Your task to perform on an android device: toggle wifi Image 0: 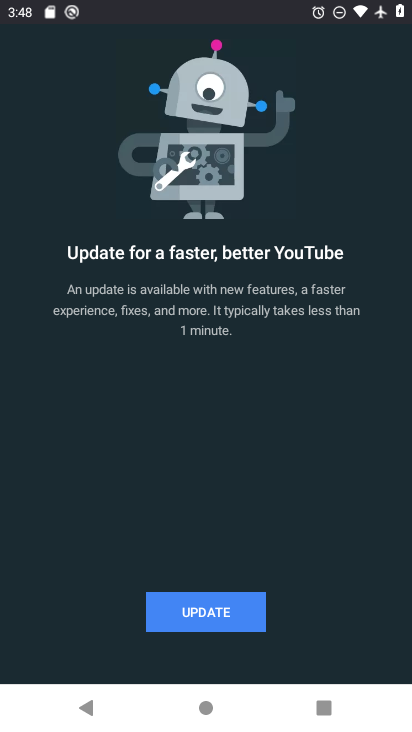
Step 0: press home button
Your task to perform on an android device: toggle wifi Image 1: 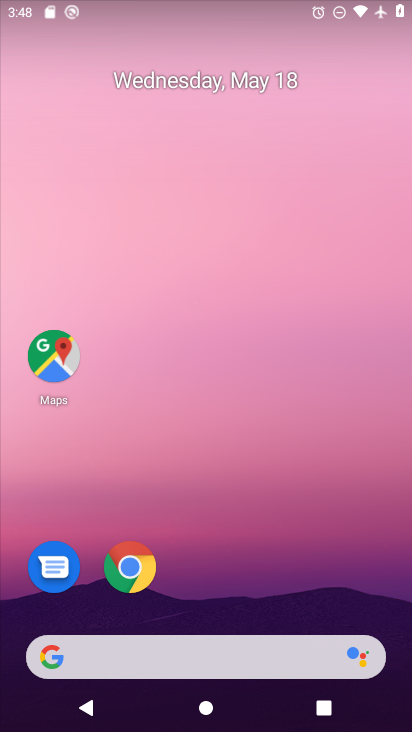
Step 1: drag from (216, 579) to (288, 196)
Your task to perform on an android device: toggle wifi Image 2: 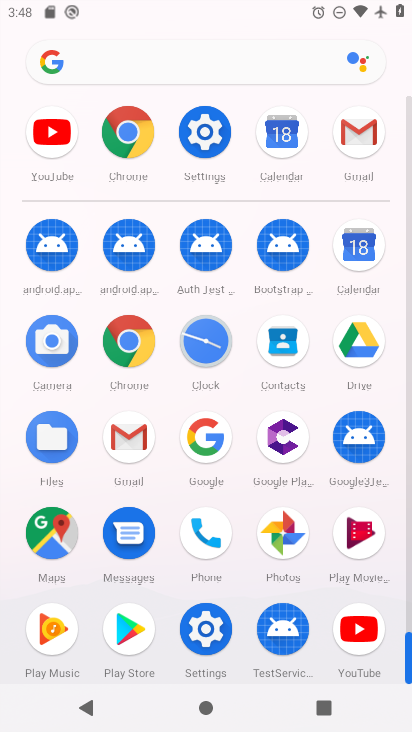
Step 2: click (206, 136)
Your task to perform on an android device: toggle wifi Image 3: 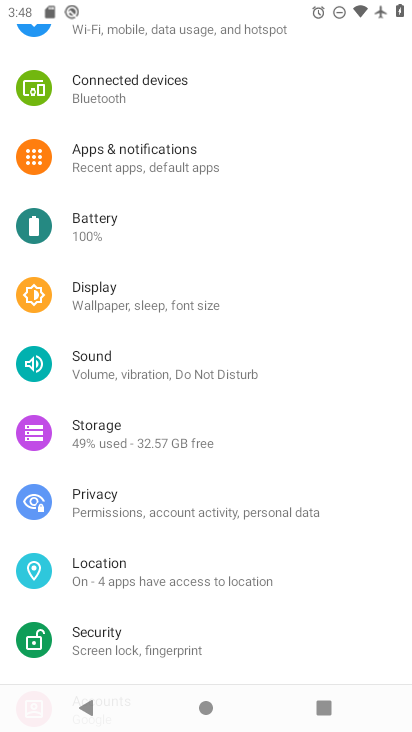
Step 3: drag from (174, 95) to (185, 475)
Your task to perform on an android device: toggle wifi Image 4: 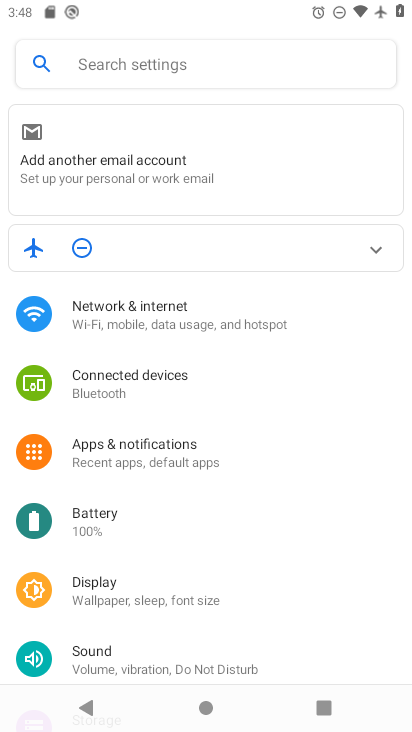
Step 4: click (191, 315)
Your task to perform on an android device: toggle wifi Image 5: 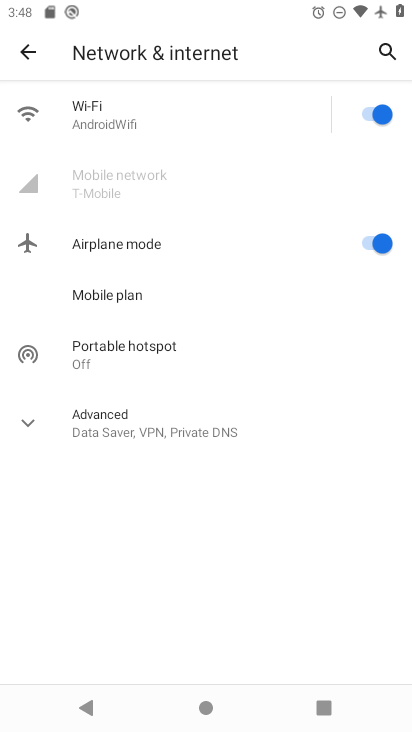
Step 5: click (144, 102)
Your task to perform on an android device: toggle wifi Image 6: 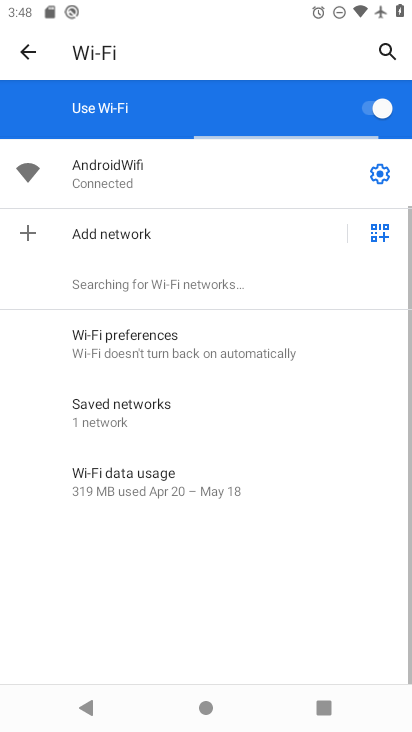
Step 6: click (402, 109)
Your task to perform on an android device: toggle wifi Image 7: 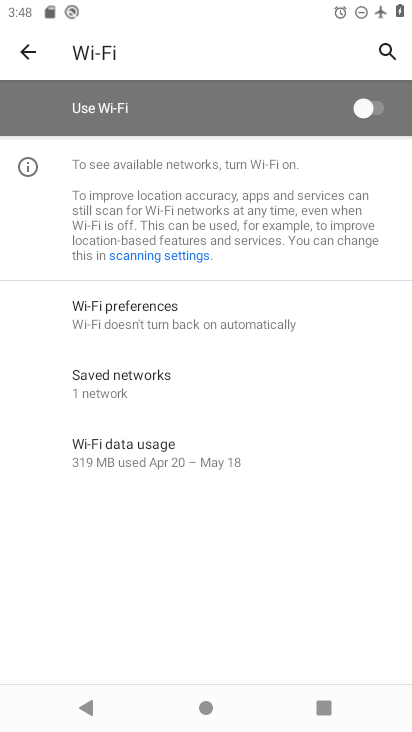
Step 7: click (376, 104)
Your task to perform on an android device: toggle wifi Image 8: 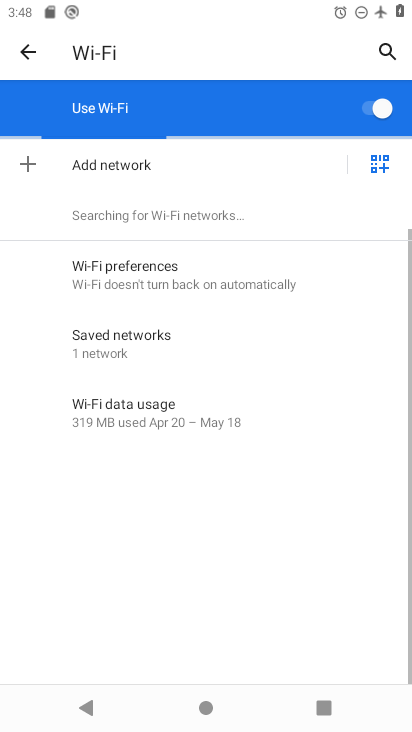
Step 8: click (374, 103)
Your task to perform on an android device: toggle wifi Image 9: 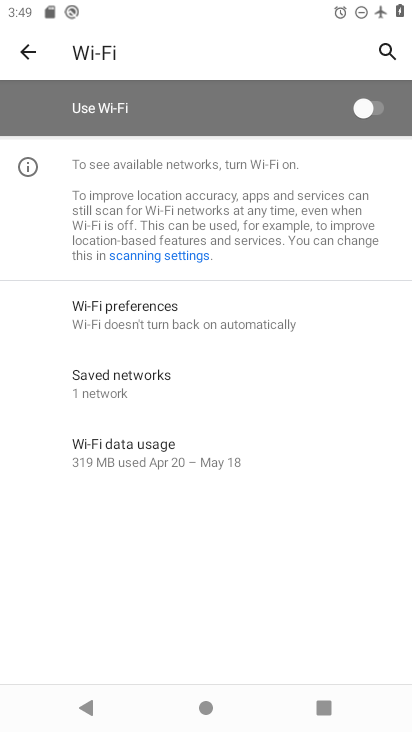
Step 9: task complete